Your task to perform on an android device: Open location settings Image 0: 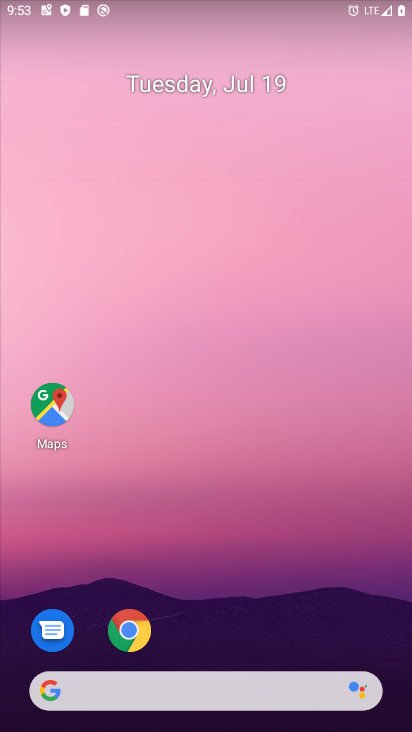
Step 0: drag from (215, 597) to (255, 74)
Your task to perform on an android device: Open location settings Image 1: 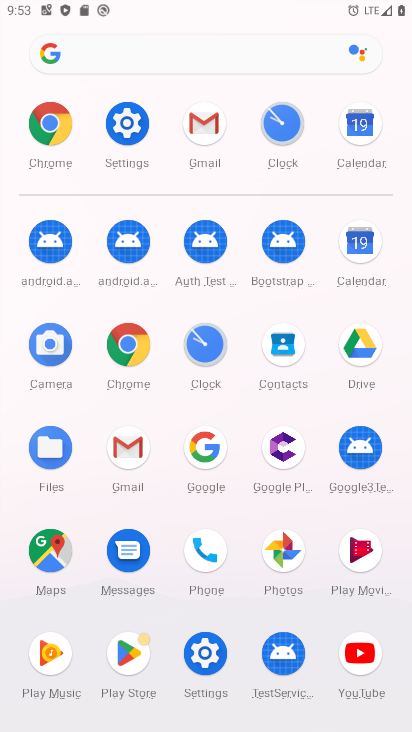
Step 1: click (130, 119)
Your task to perform on an android device: Open location settings Image 2: 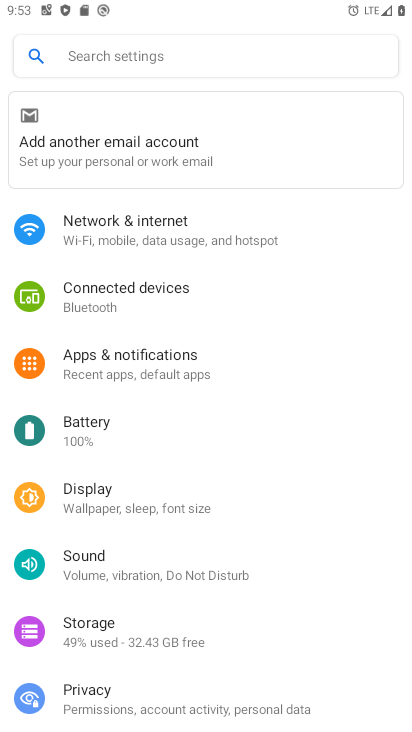
Step 2: drag from (230, 569) to (224, 175)
Your task to perform on an android device: Open location settings Image 3: 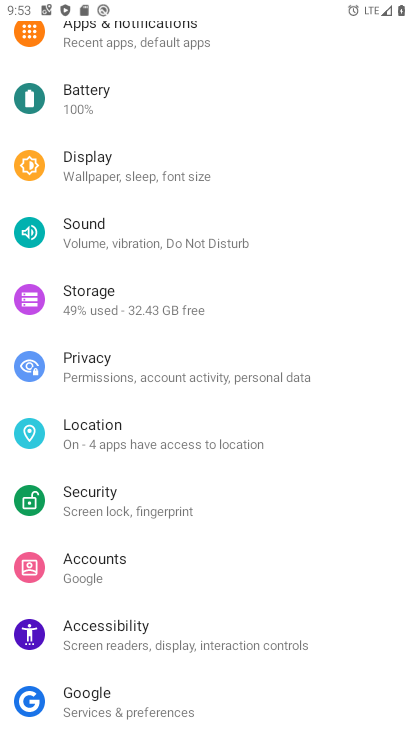
Step 3: click (85, 434)
Your task to perform on an android device: Open location settings Image 4: 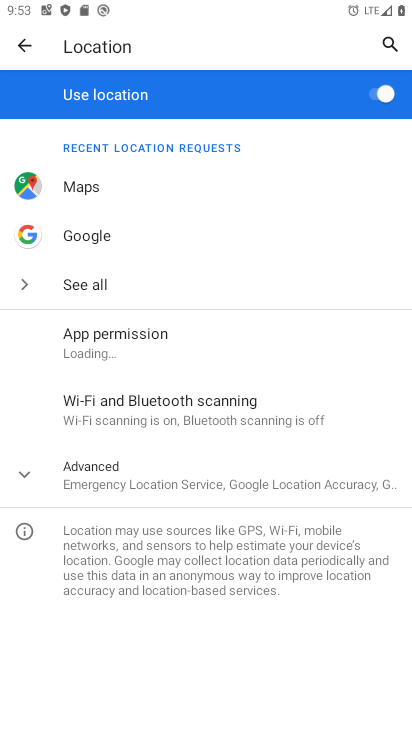
Step 4: task complete